Your task to perform on an android device: Search for vegetarian restaurants on Maps Image 0: 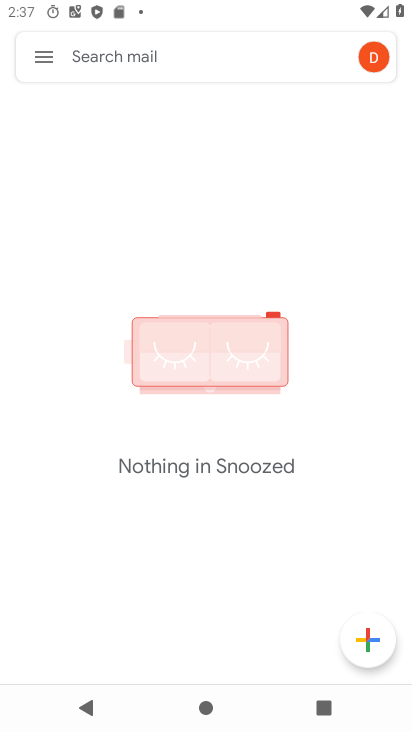
Step 0: press home button
Your task to perform on an android device: Search for vegetarian restaurants on Maps Image 1: 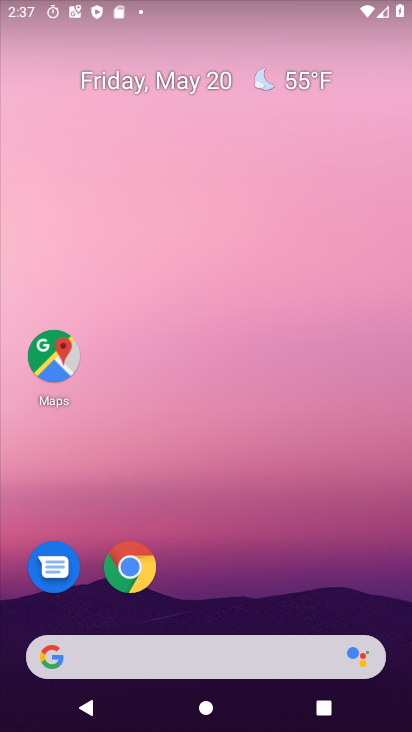
Step 1: drag from (169, 640) to (222, 234)
Your task to perform on an android device: Search for vegetarian restaurants on Maps Image 2: 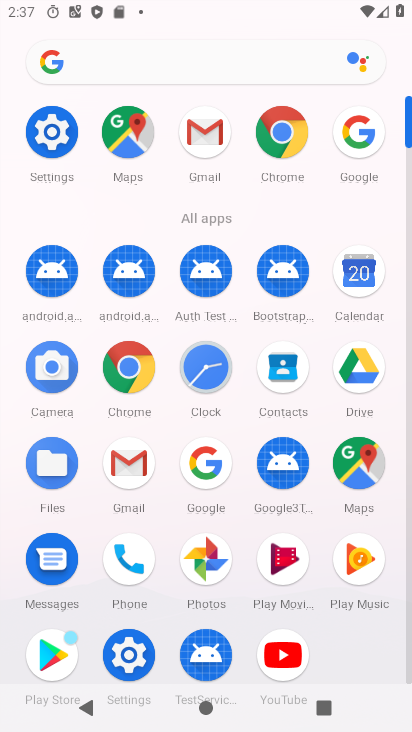
Step 2: click (347, 473)
Your task to perform on an android device: Search for vegetarian restaurants on Maps Image 3: 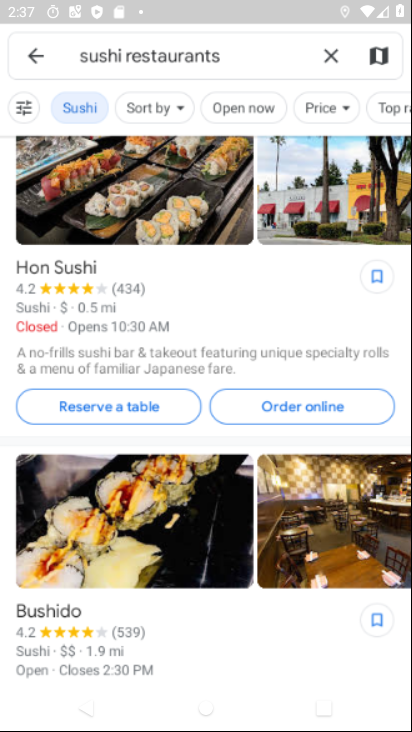
Step 3: task complete